Your task to perform on an android device: visit the assistant section in the google photos Image 0: 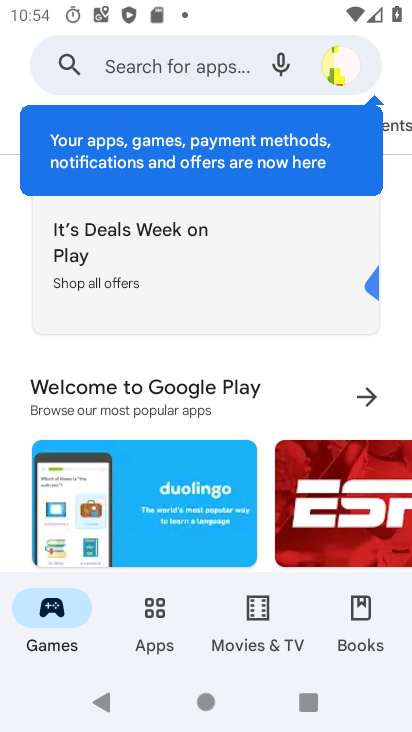
Step 0: press home button
Your task to perform on an android device: visit the assistant section in the google photos Image 1: 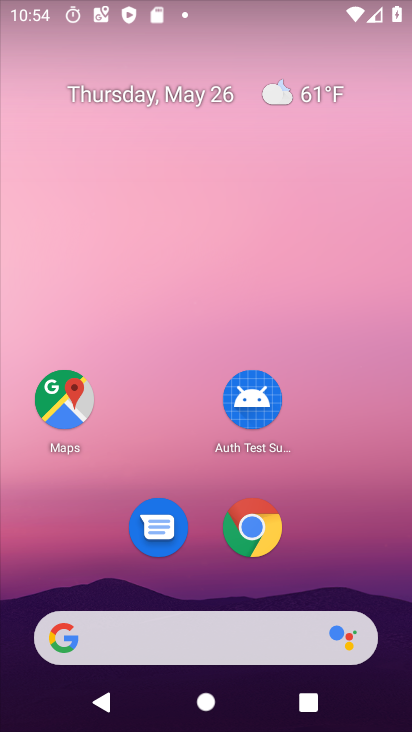
Step 1: drag from (360, 570) to (366, 50)
Your task to perform on an android device: visit the assistant section in the google photos Image 2: 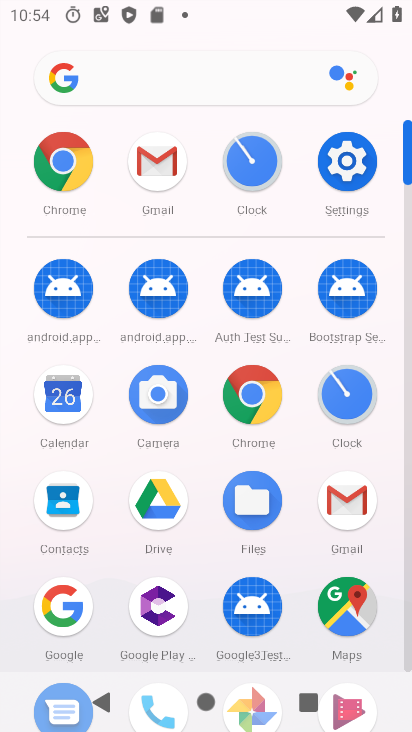
Step 2: drag from (314, 559) to (288, 292)
Your task to perform on an android device: visit the assistant section in the google photos Image 3: 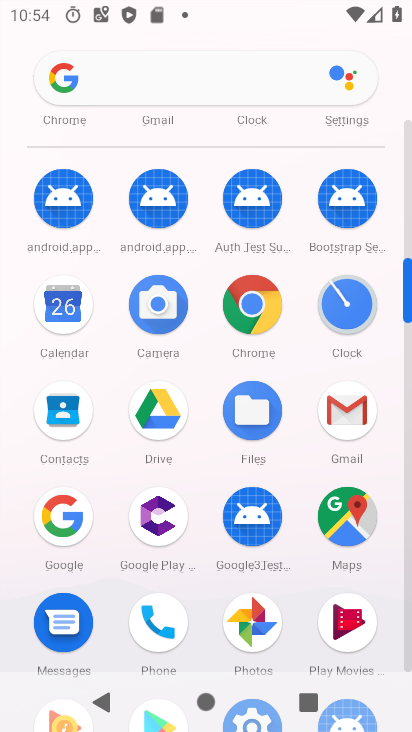
Step 3: click (264, 617)
Your task to perform on an android device: visit the assistant section in the google photos Image 4: 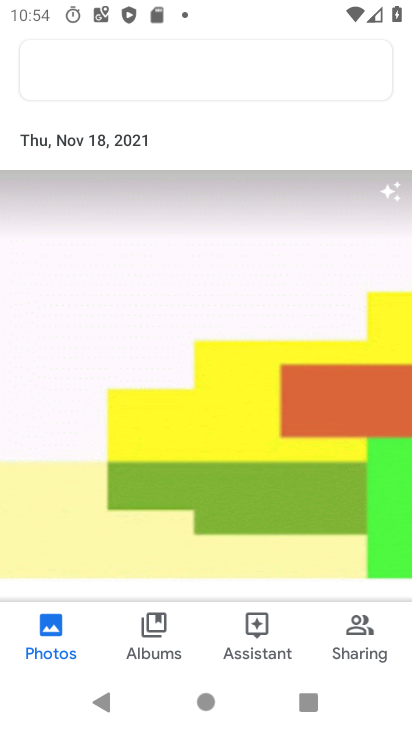
Step 4: click (250, 626)
Your task to perform on an android device: visit the assistant section in the google photos Image 5: 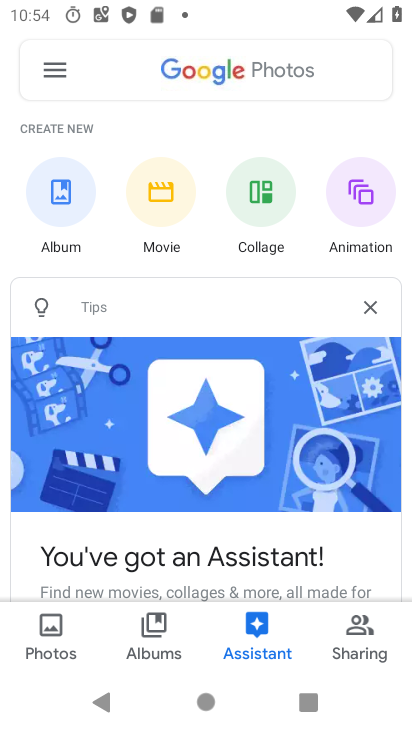
Step 5: task complete